Your task to perform on an android device: choose inbox layout in the gmail app Image 0: 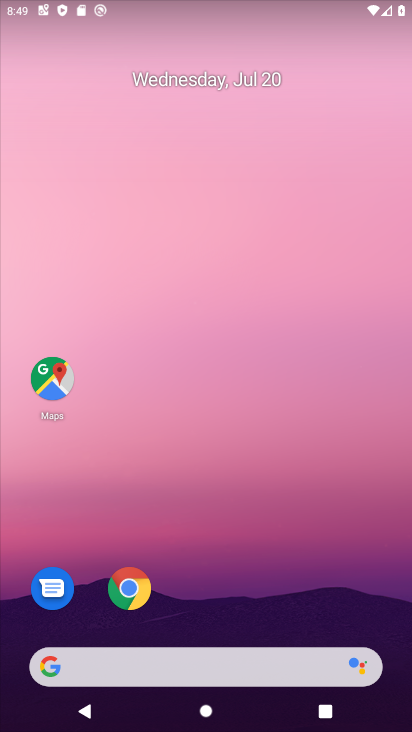
Step 0: click (141, 562)
Your task to perform on an android device: choose inbox layout in the gmail app Image 1: 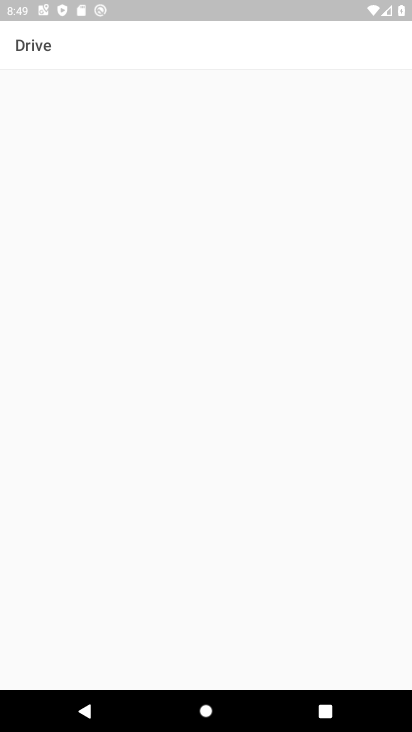
Step 1: press home button
Your task to perform on an android device: choose inbox layout in the gmail app Image 2: 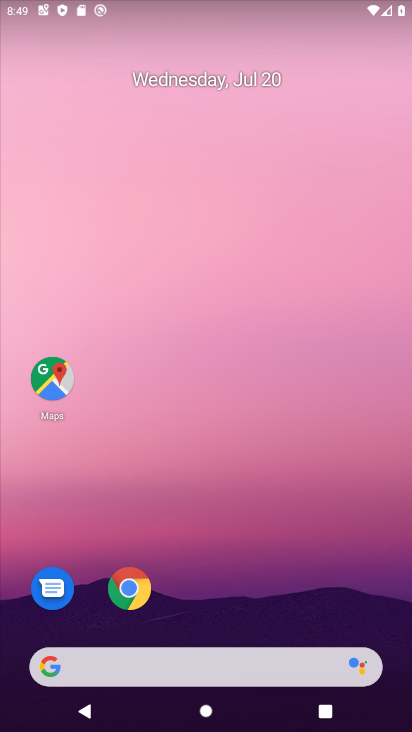
Step 2: drag from (205, 600) to (280, 89)
Your task to perform on an android device: choose inbox layout in the gmail app Image 3: 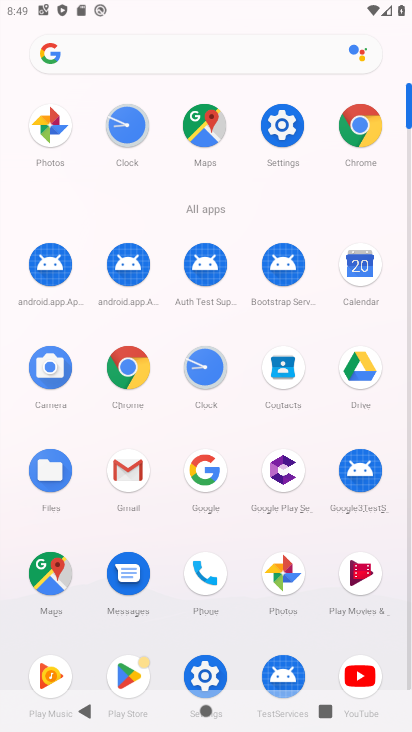
Step 3: click (118, 465)
Your task to perform on an android device: choose inbox layout in the gmail app Image 4: 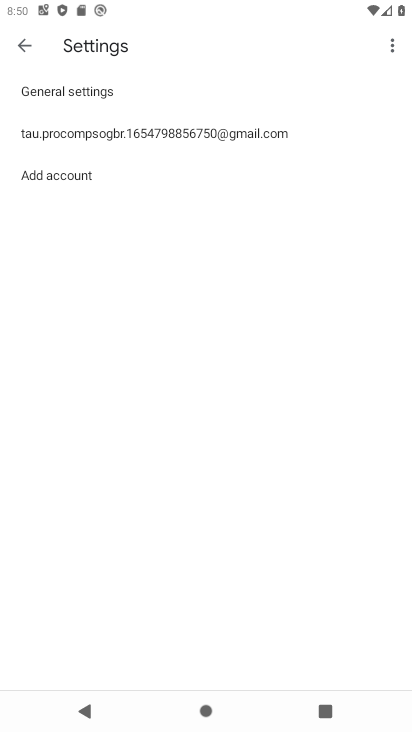
Step 4: click (323, 140)
Your task to perform on an android device: choose inbox layout in the gmail app Image 5: 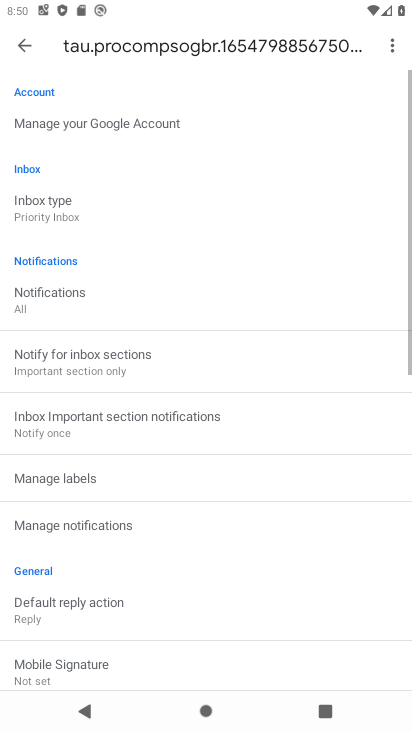
Step 5: click (124, 229)
Your task to perform on an android device: choose inbox layout in the gmail app Image 6: 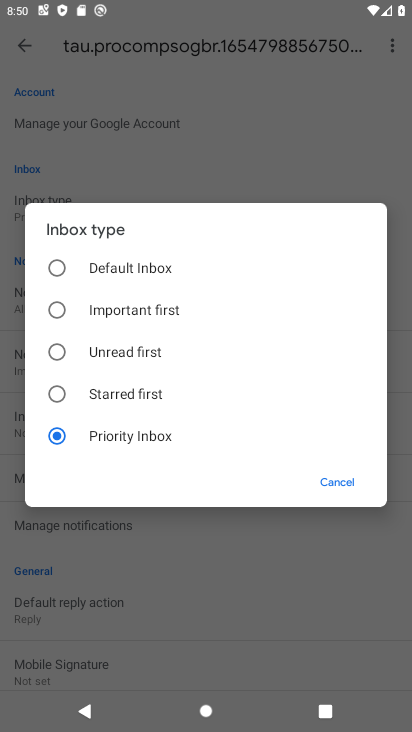
Step 6: click (170, 298)
Your task to perform on an android device: choose inbox layout in the gmail app Image 7: 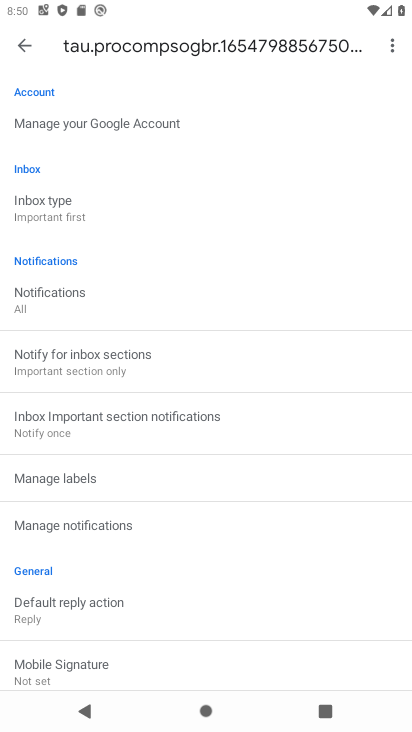
Step 7: task complete